Your task to perform on an android device: turn on airplane mode Image 0: 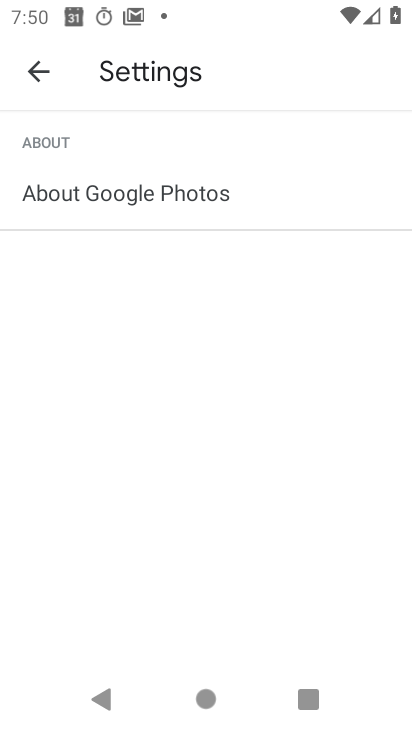
Step 0: press home button
Your task to perform on an android device: turn on airplane mode Image 1: 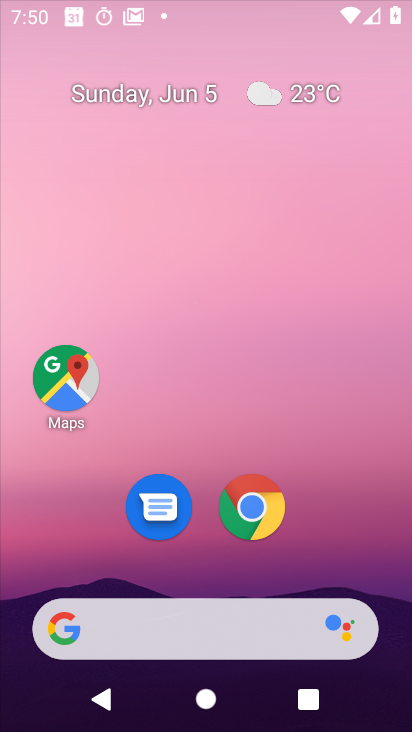
Step 1: drag from (268, 679) to (323, 52)
Your task to perform on an android device: turn on airplane mode Image 2: 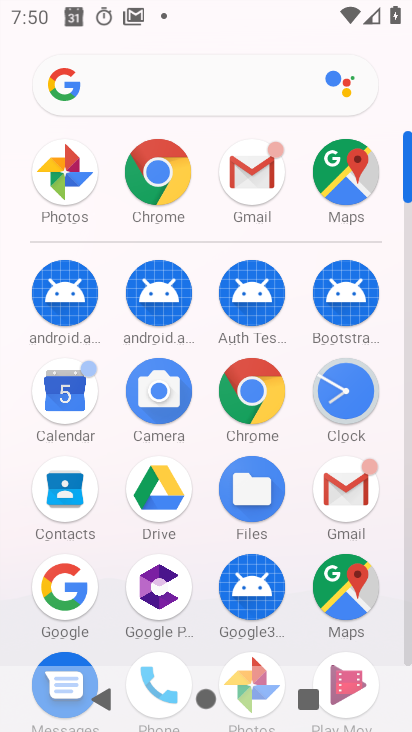
Step 2: drag from (111, 547) to (94, 330)
Your task to perform on an android device: turn on airplane mode Image 3: 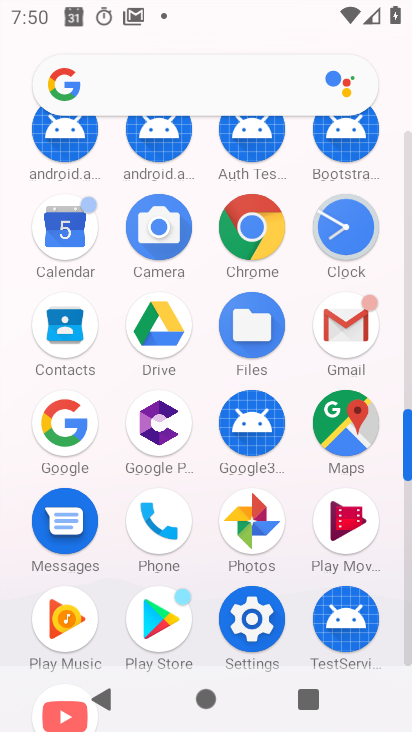
Step 3: drag from (115, 481) to (97, 228)
Your task to perform on an android device: turn on airplane mode Image 4: 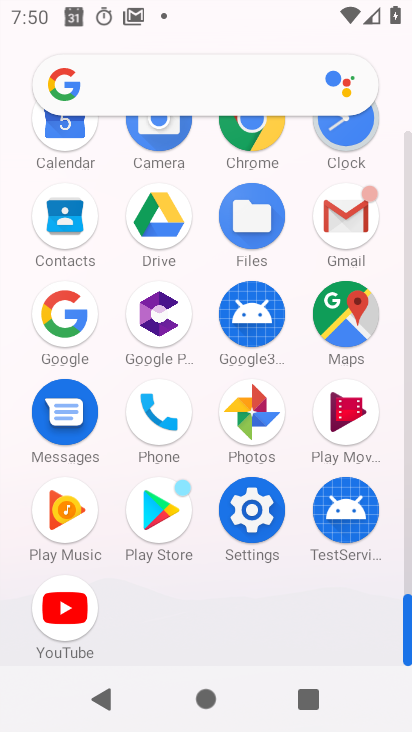
Step 4: click (245, 514)
Your task to perform on an android device: turn on airplane mode Image 5: 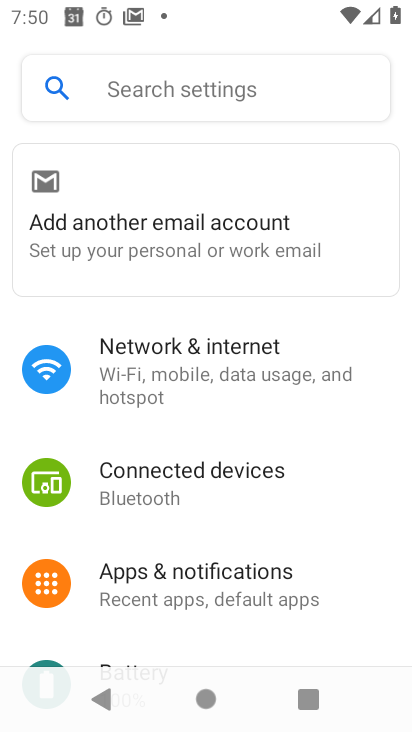
Step 5: click (161, 375)
Your task to perform on an android device: turn on airplane mode Image 6: 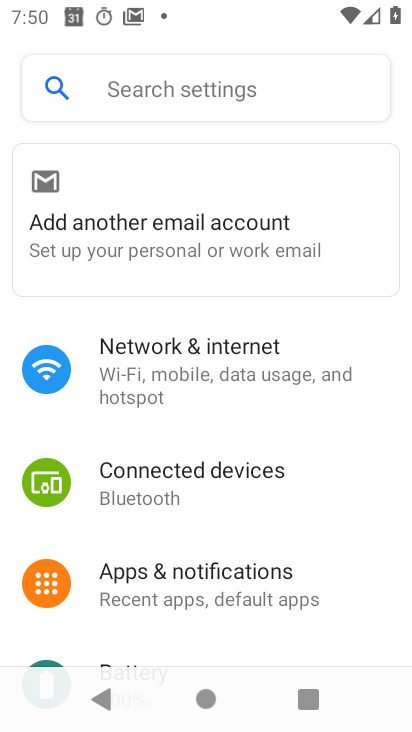
Step 6: click (197, 379)
Your task to perform on an android device: turn on airplane mode Image 7: 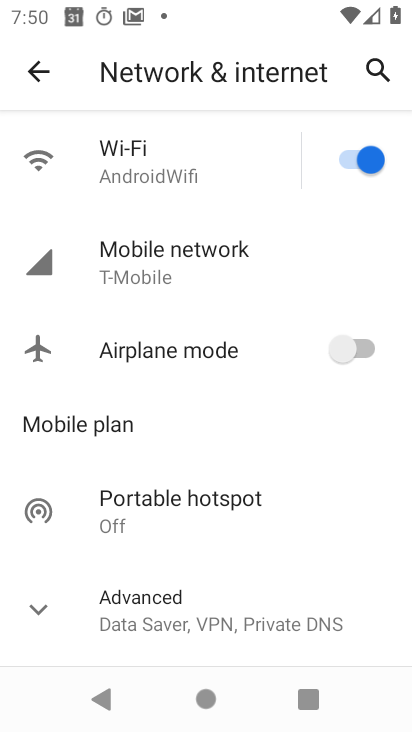
Step 7: click (358, 341)
Your task to perform on an android device: turn on airplane mode Image 8: 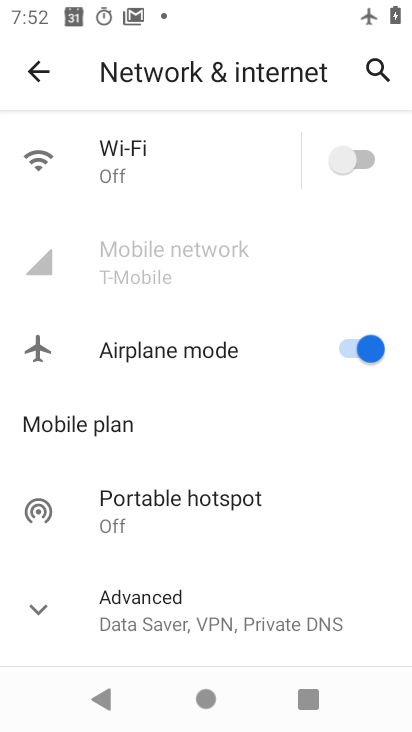
Step 8: task complete